Your task to perform on an android device: check data usage Image 0: 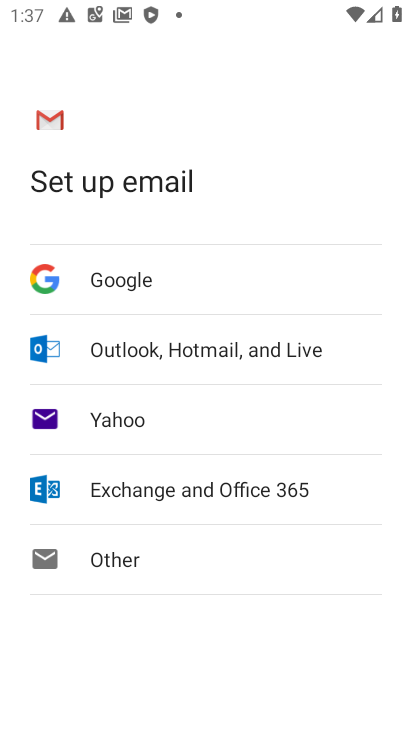
Step 0: press home button
Your task to perform on an android device: check data usage Image 1: 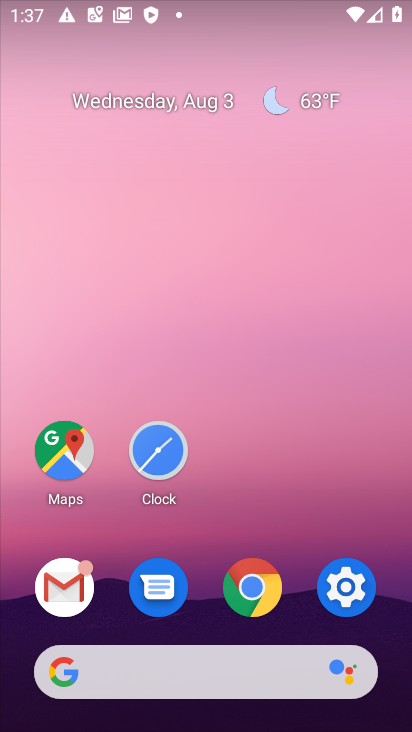
Step 1: drag from (250, 496) to (192, 54)
Your task to perform on an android device: check data usage Image 2: 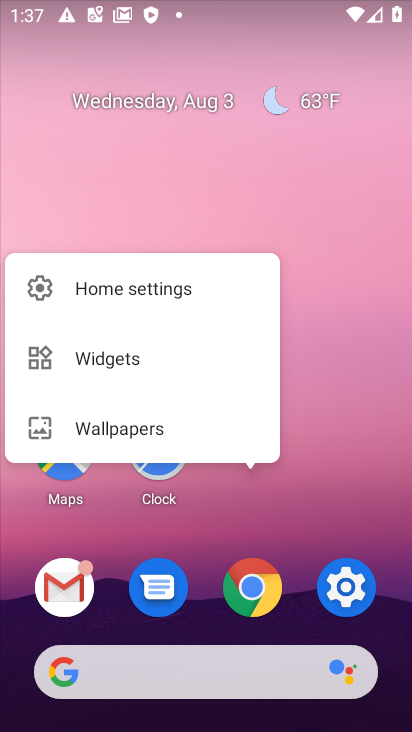
Step 2: click (338, 421)
Your task to perform on an android device: check data usage Image 3: 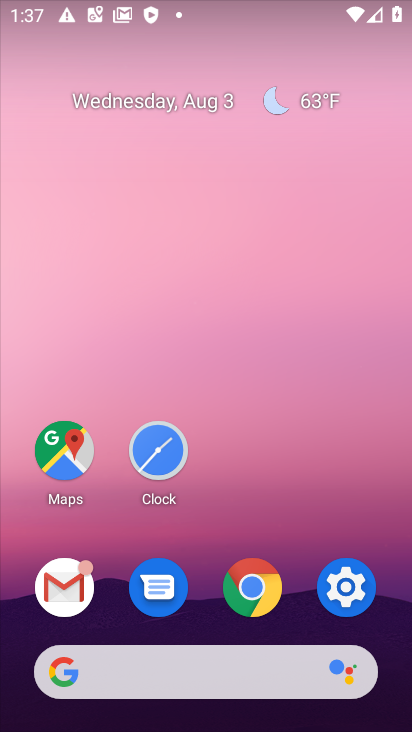
Step 3: click (347, 586)
Your task to perform on an android device: check data usage Image 4: 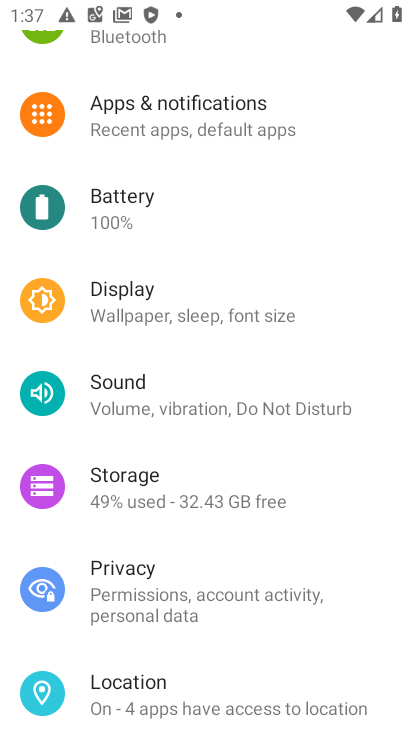
Step 4: drag from (256, 235) to (252, 599)
Your task to perform on an android device: check data usage Image 5: 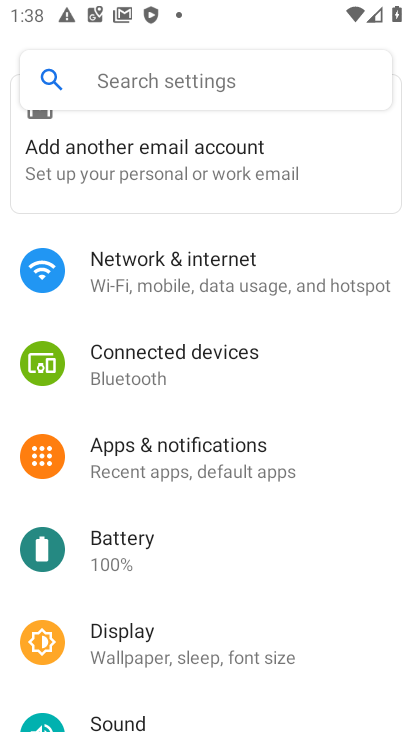
Step 5: click (180, 260)
Your task to perform on an android device: check data usage Image 6: 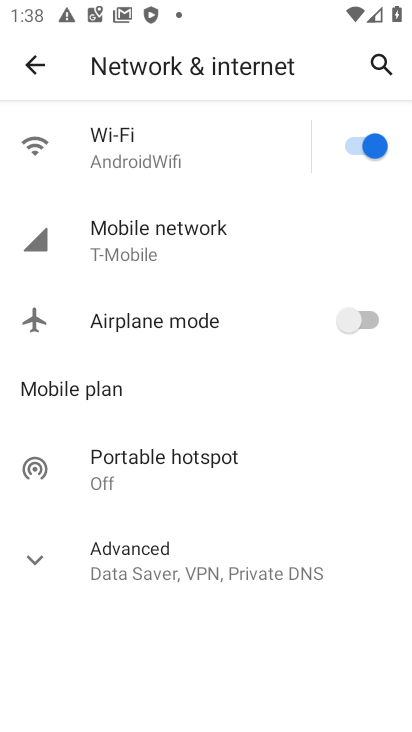
Step 6: click (160, 230)
Your task to perform on an android device: check data usage Image 7: 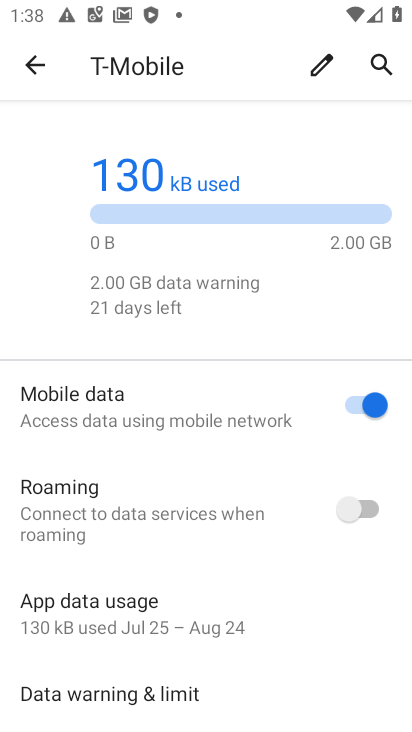
Step 7: task complete